Your task to perform on an android device: Open the Play Movies app and select the watchlist tab. Image 0: 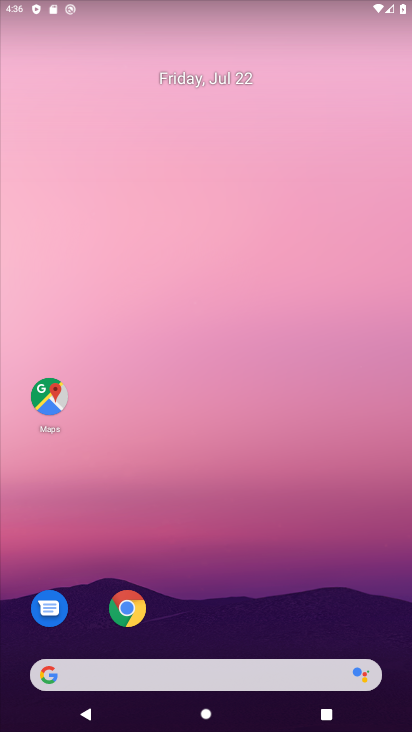
Step 0: drag from (177, 624) to (166, 95)
Your task to perform on an android device: Open the Play Movies app and select the watchlist tab. Image 1: 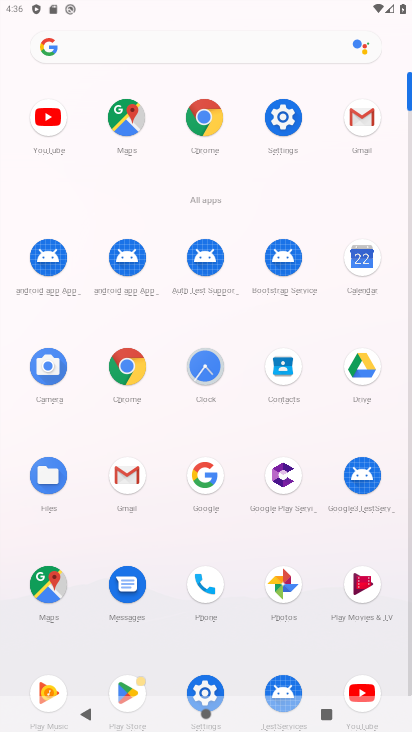
Step 1: click (361, 588)
Your task to perform on an android device: Open the Play Movies app and select the watchlist tab. Image 2: 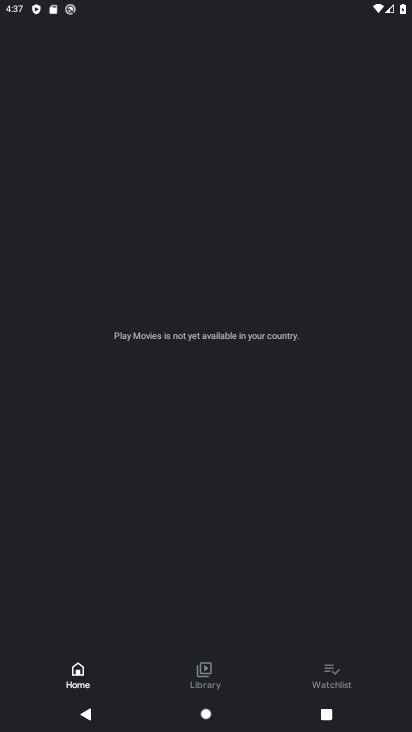
Step 2: click (344, 692)
Your task to perform on an android device: Open the Play Movies app and select the watchlist tab. Image 3: 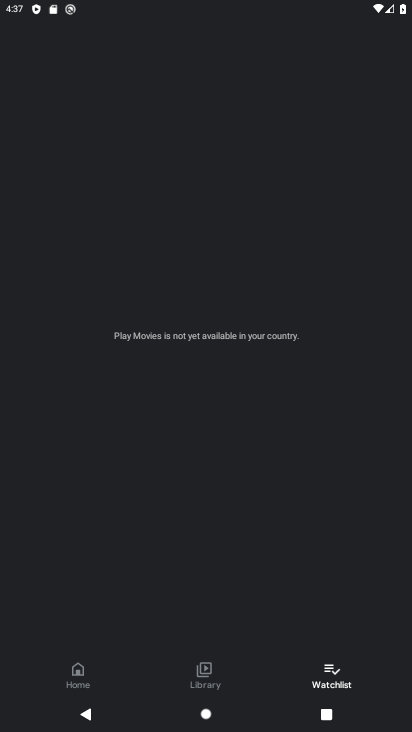
Step 3: task complete